Your task to perform on an android device: Search for sushi restaurants on Maps Image 0: 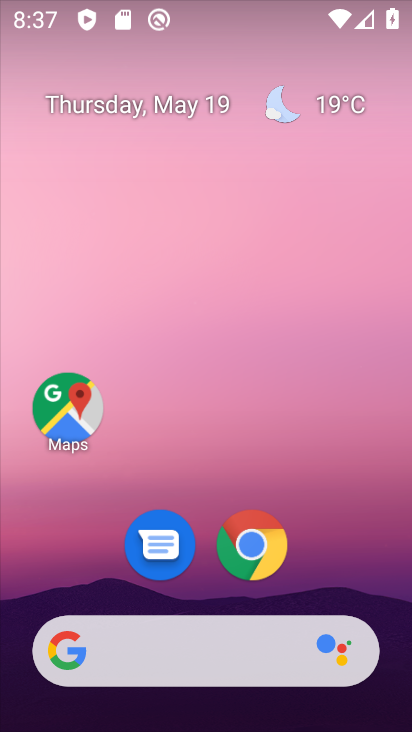
Step 0: drag from (326, 573) to (310, 358)
Your task to perform on an android device: Search for sushi restaurants on Maps Image 1: 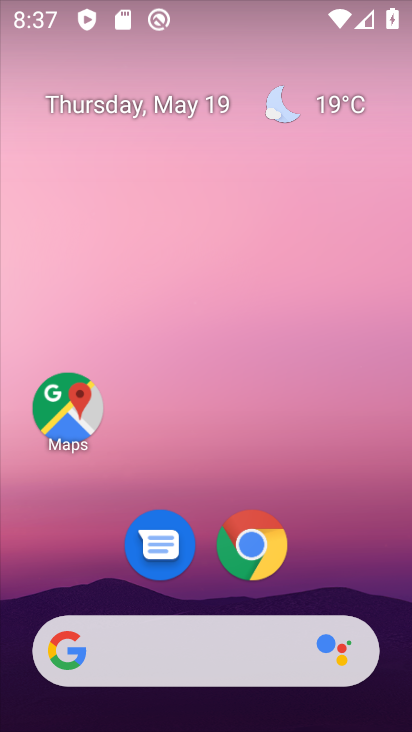
Step 1: click (86, 415)
Your task to perform on an android device: Search for sushi restaurants on Maps Image 2: 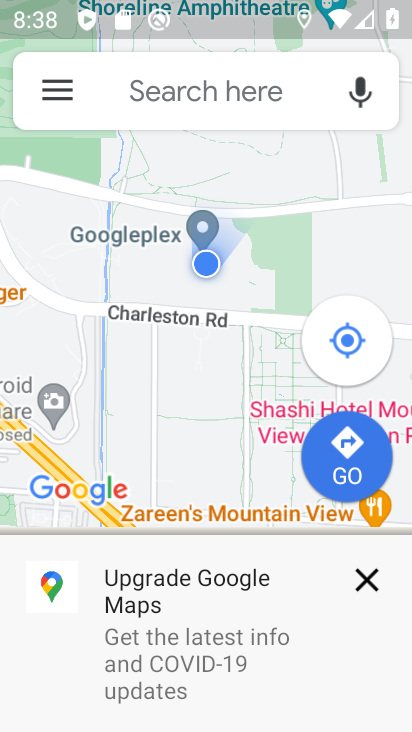
Step 2: click (205, 114)
Your task to perform on an android device: Search for sushi restaurants on Maps Image 3: 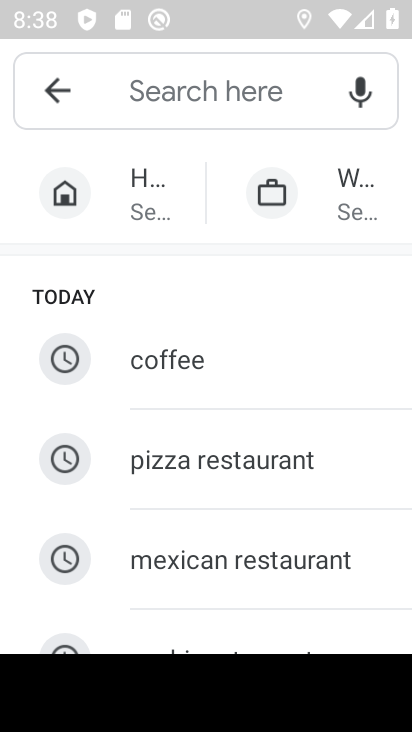
Step 3: type "sushi"
Your task to perform on an android device: Search for sushi restaurants on Maps Image 4: 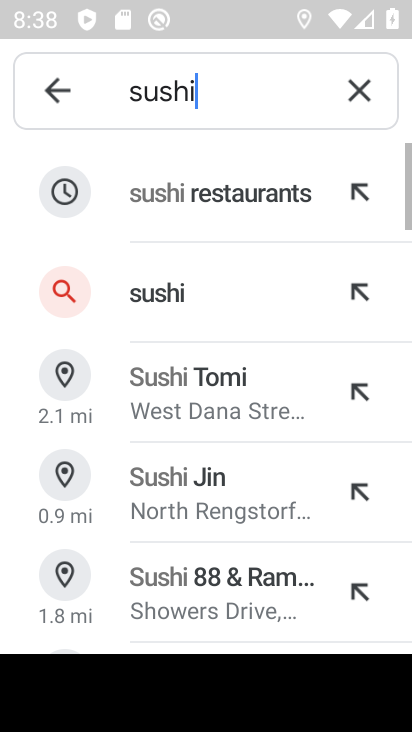
Step 4: click (163, 217)
Your task to perform on an android device: Search for sushi restaurants on Maps Image 5: 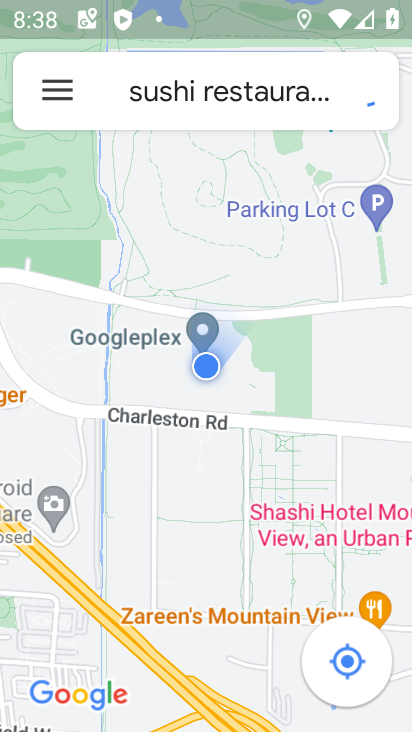
Step 5: task complete